Your task to perform on an android device: Search for sushi restaurants on Maps Image 0: 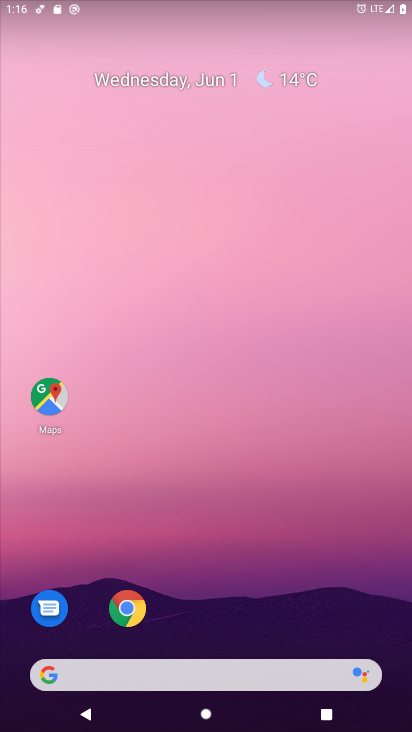
Step 0: click (51, 375)
Your task to perform on an android device: Search for sushi restaurants on Maps Image 1: 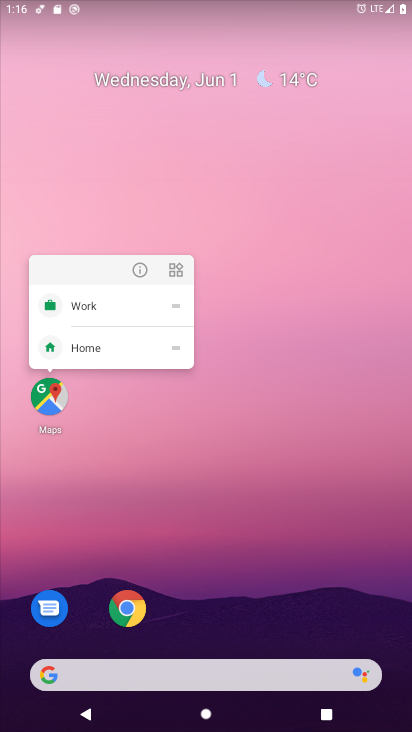
Step 1: click (49, 404)
Your task to perform on an android device: Search for sushi restaurants on Maps Image 2: 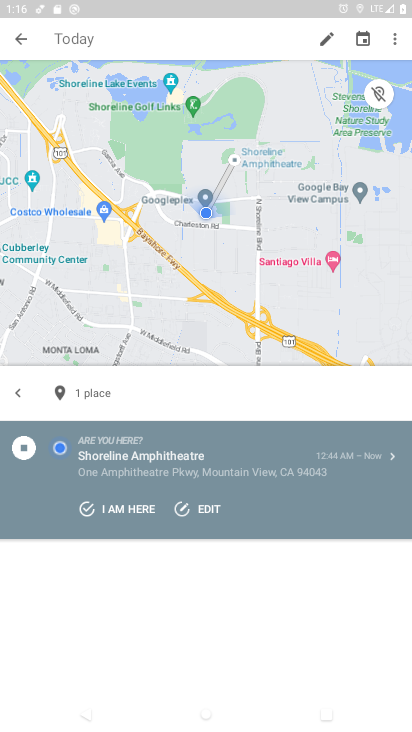
Step 2: click (18, 33)
Your task to perform on an android device: Search for sushi restaurants on Maps Image 3: 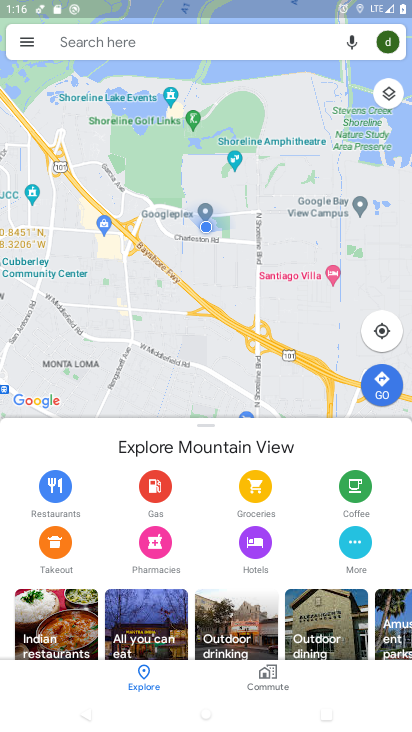
Step 3: click (198, 43)
Your task to perform on an android device: Search for sushi restaurants on Maps Image 4: 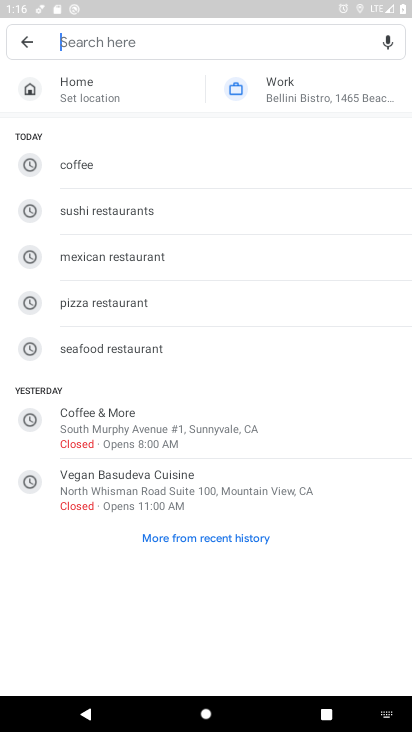
Step 4: type "sushi restaurants"
Your task to perform on an android device: Search for sushi restaurants on Maps Image 5: 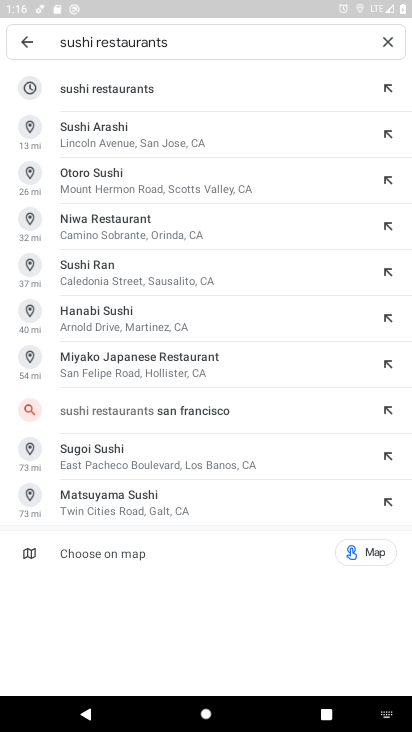
Step 5: click (94, 90)
Your task to perform on an android device: Search for sushi restaurants on Maps Image 6: 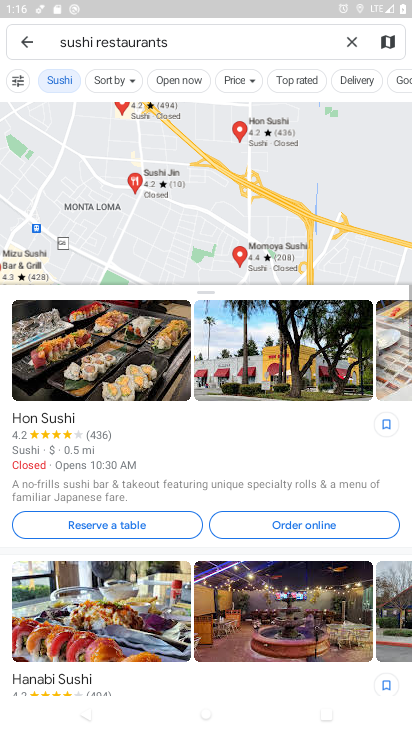
Step 6: task complete